Your task to perform on an android device: Open the web browser Image 0: 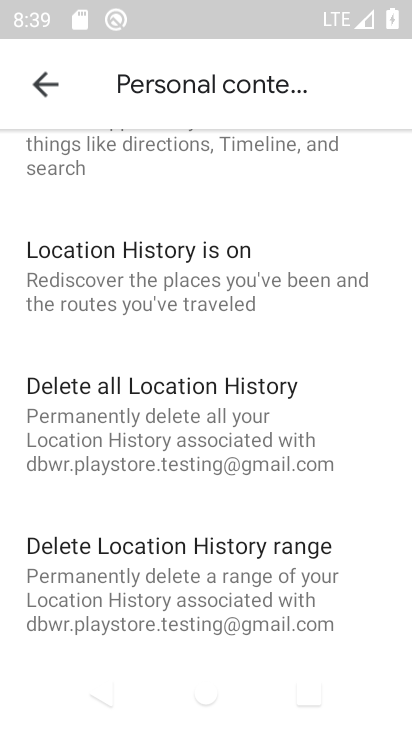
Step 0: press home button
Your task to perform on an android device: Open the web browser Image 1: 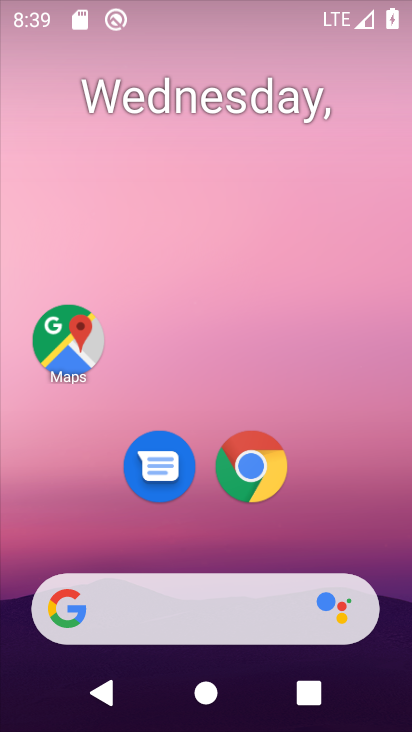
Step 1: drag from (221, 726) to (232, 205)
Your task to perform on an android device: Open the web browser Image 2: 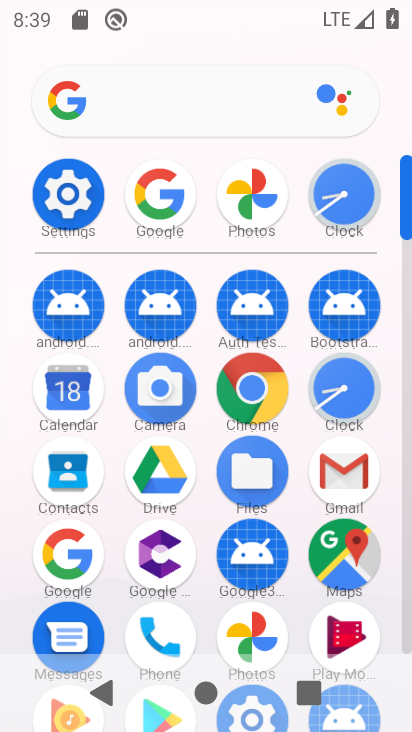
Step 2: click (242, 387)
Your task to perform on an android device: Open the web browser Image 3: 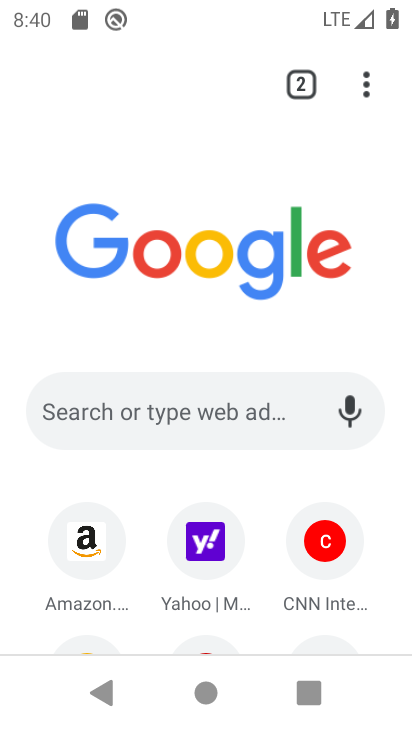
Step 3: task complete